Your task to perform on an android device: turn on wifi Image 0: 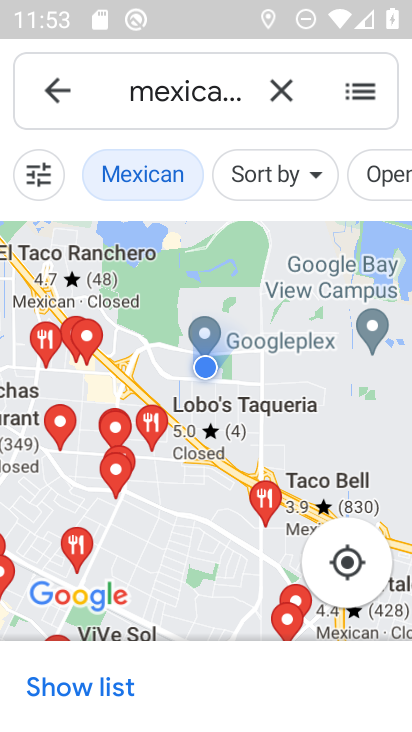
Step 0: press home button
Your task to perform on an android device: turn on wifi Image 1: 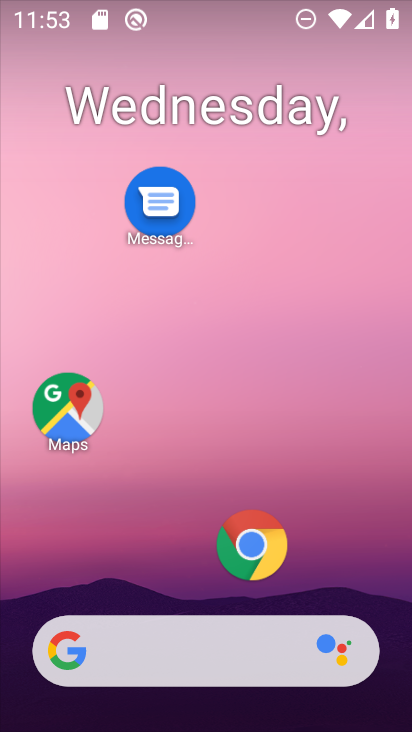
Step 1: drag from (166, 594) to (160, 210)
Your task to perform on an android device: turn on wifi Image 2: 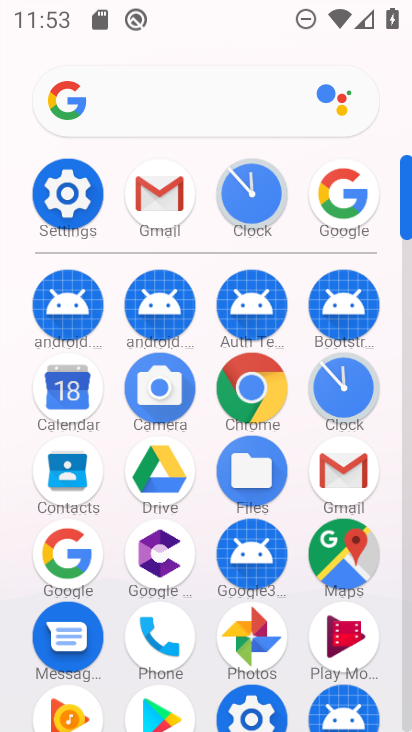
Step 2: click (83, 197)
Your task to perform on an android device: turn on wifi Image 3: 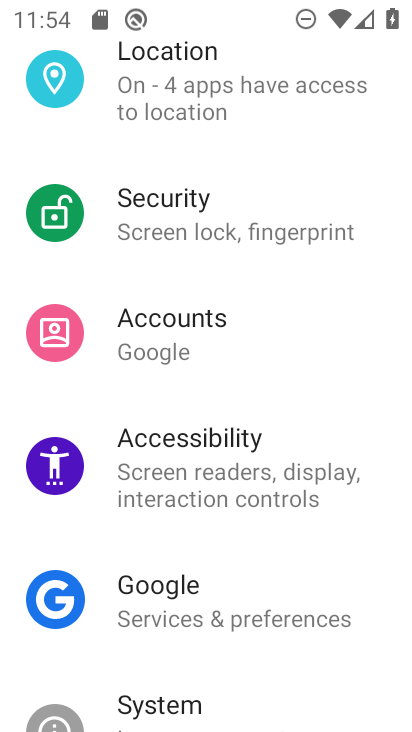
Step 3: drag from (235, 235) to (248, 536)
Your task to perform on an android device: turn on wifi Image 4: 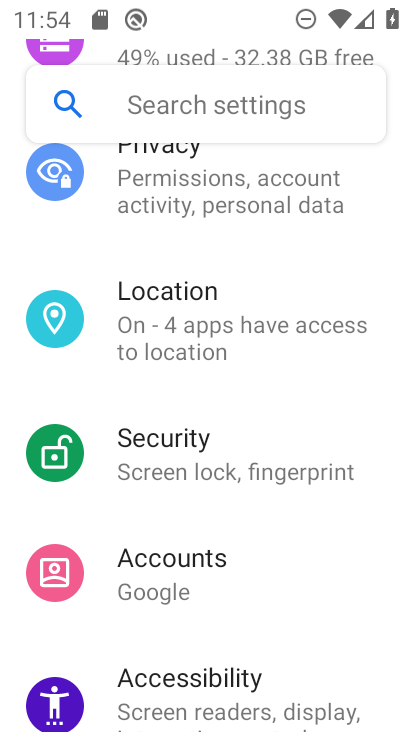
Step 4: drag from (267, 249) to (275, 511)
Your task to perform on an android device: turn on wifi Image 5: 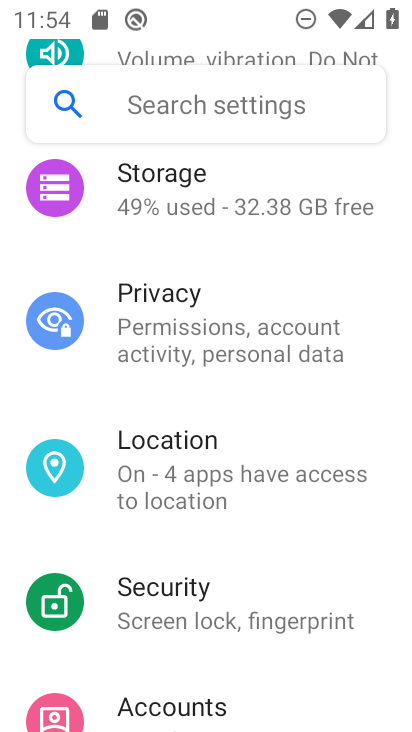
Step 5: drag from (219, 165) to (267, 585)
Your task to perform on an android device: turn on wifi Image 6: 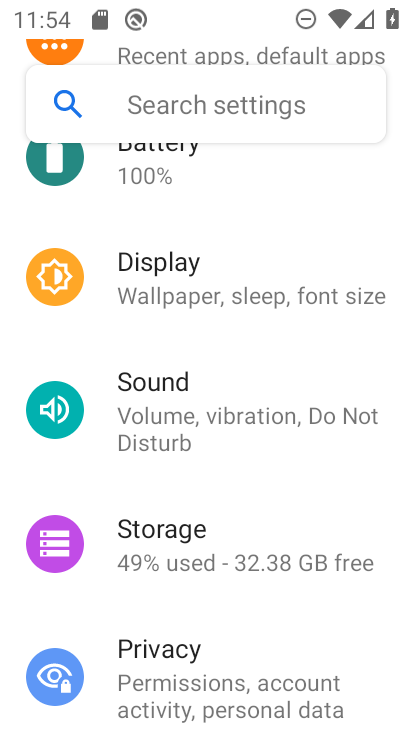
Step 6: drag from (215, 217) to (243, 500)
Your task to perform on an android device: turn on wifi Image 7: 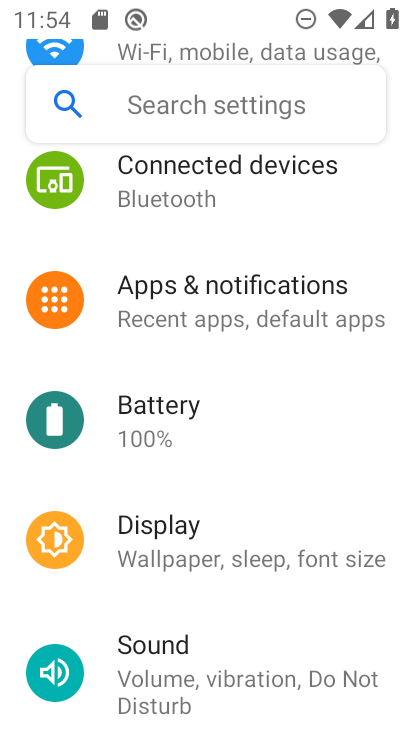
Step 7: drag from (242, 203) to (246, 517)
Your task to perform on an android device: turn on wifi Image 8: 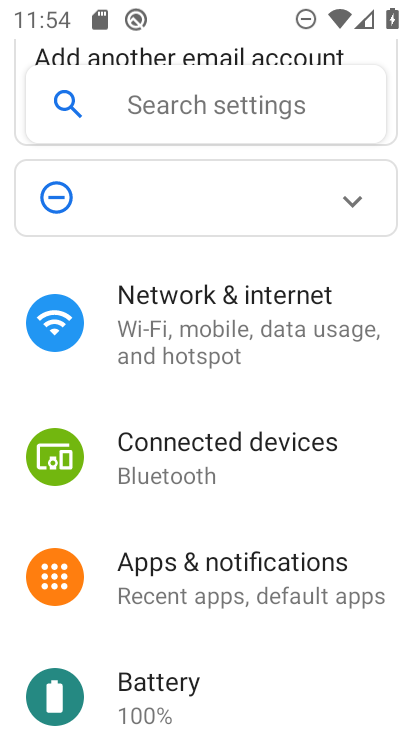
Step 8: click (183, 333)
Your task to perform on an android device: turn on wifi Image 9: 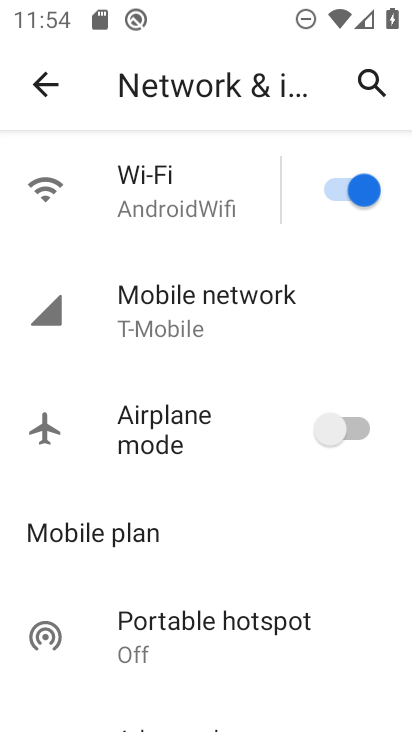
Step 9: task complete